Your task to perform on an android device: change the clock display to analog Image 0: 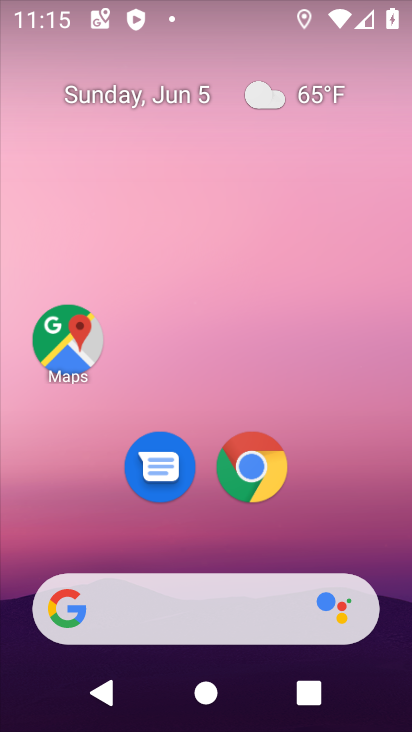
Step 0: press home button
Your task to perform on an android device: change the clock display to analog Image 1: 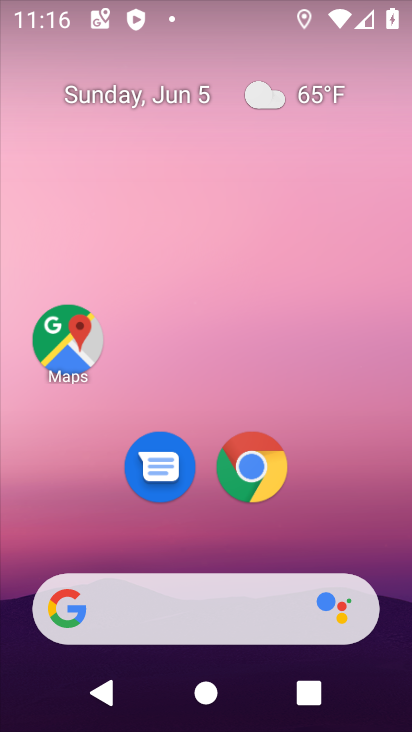
Step 1: drag from (331, 526) to (254, 0)
Your task to perform on an android device: change the clock display to analog Image 2: 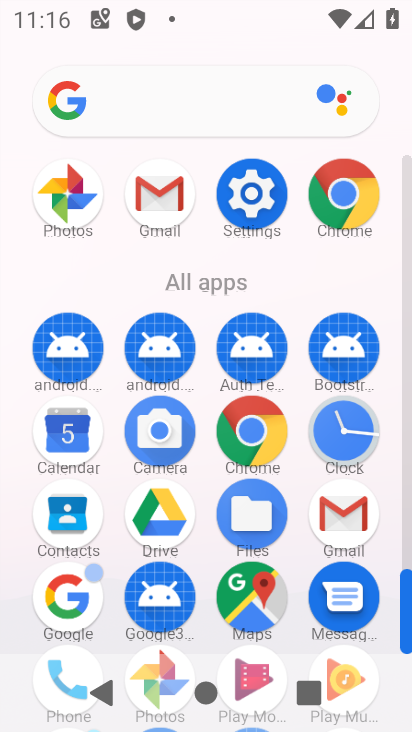
Step 2: click (336, 427)
Your task to perform on an android device: change the clock display to analog Image 3: 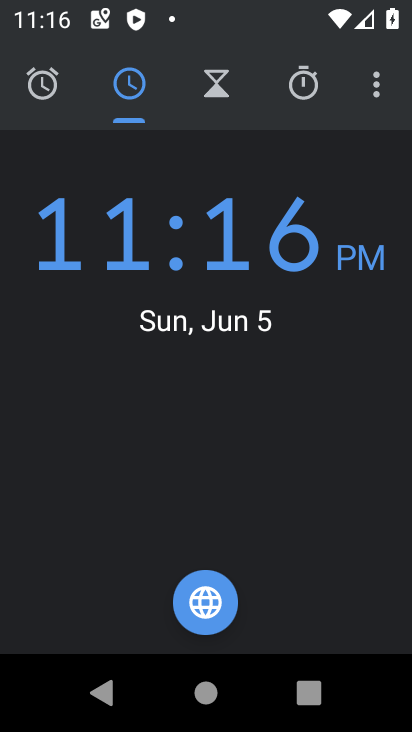
Step 3: click (388, 74)
Your task to perform on an android device: change the clock display to analog Image 4: 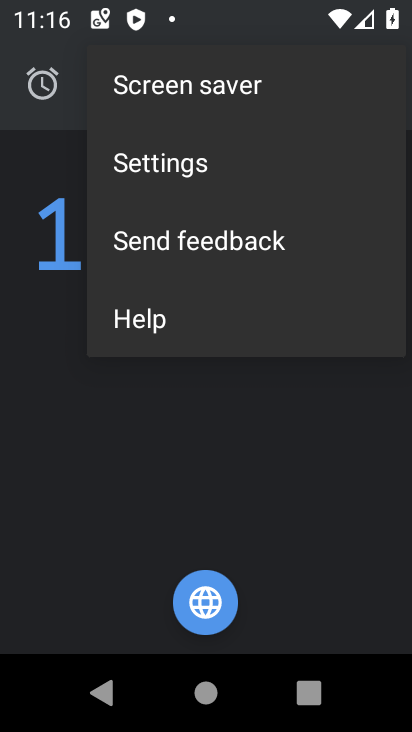
Step 4: click (171, 183)
Your task to perform on an android device: change the clock display to analog Image 5: 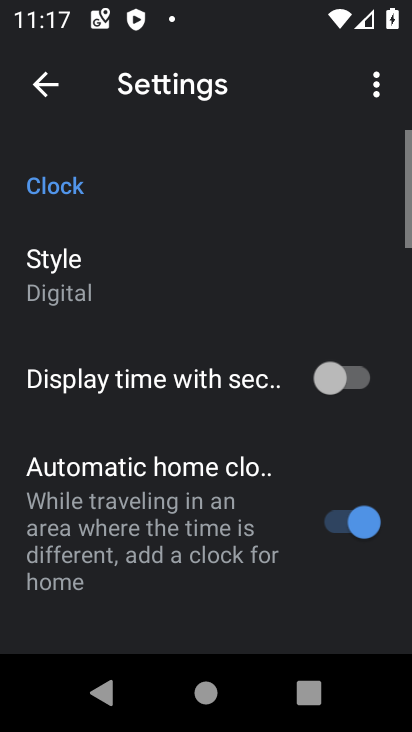
Step 5: click (228, 292)
Your task to perform on an android device: change the clock display to analog Image 6: 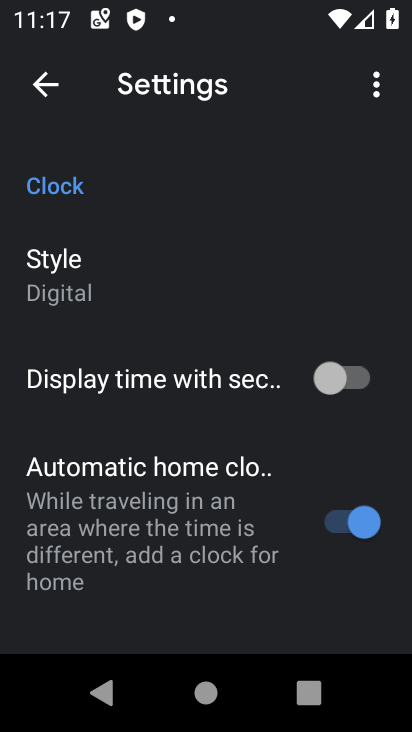
Step 6: drag from (197, 527) to (196, 314)
Your task to perform on an android device: change the clock display to analog Image 7: 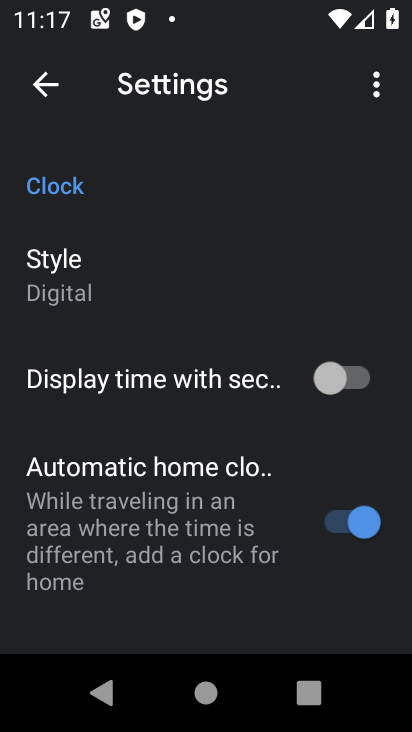
Step 7: click (47, 299)
Your task to perform on an android device: change the clock display to analog Image 8: 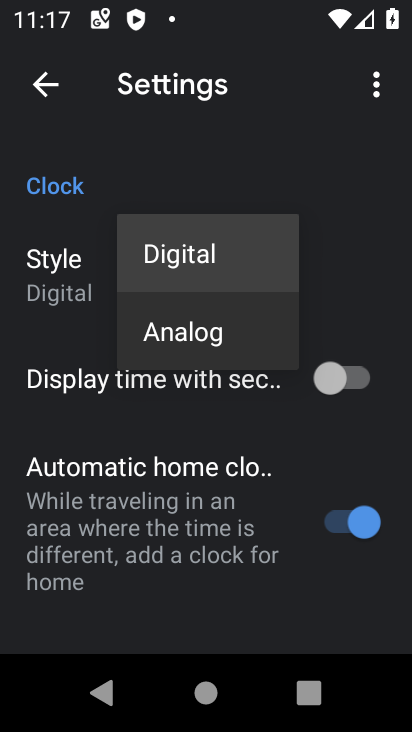
Step 8: click (166, 324)
Your task to perform on an android device: change the clock display to analog Image 9: 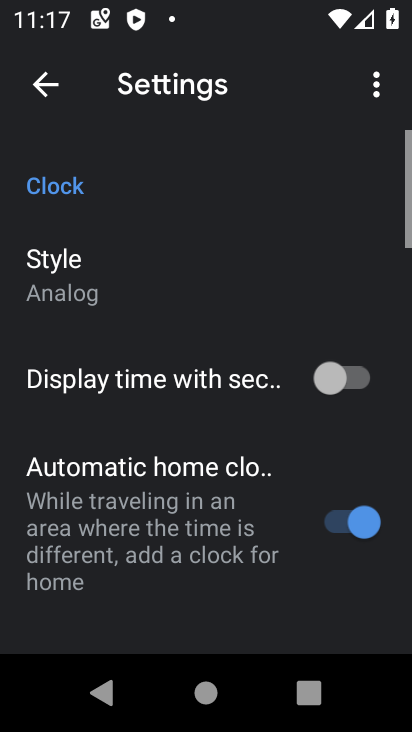
Step 9: task complete